Your task to perform on an android device: Go to Wikipedia Image 0: 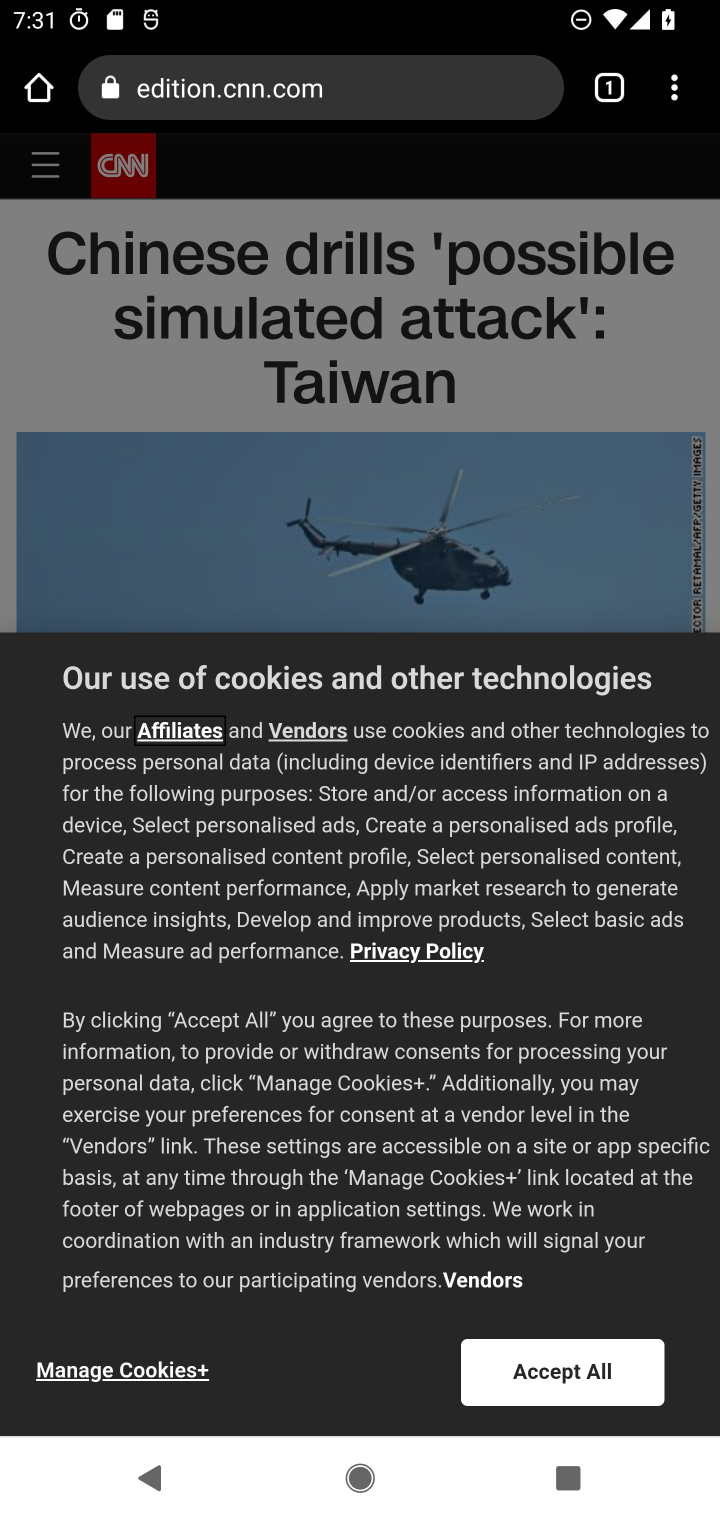
Step 0: click (347, 90)
Your task to perform on an android device: Go to Wikipedia Image 1: 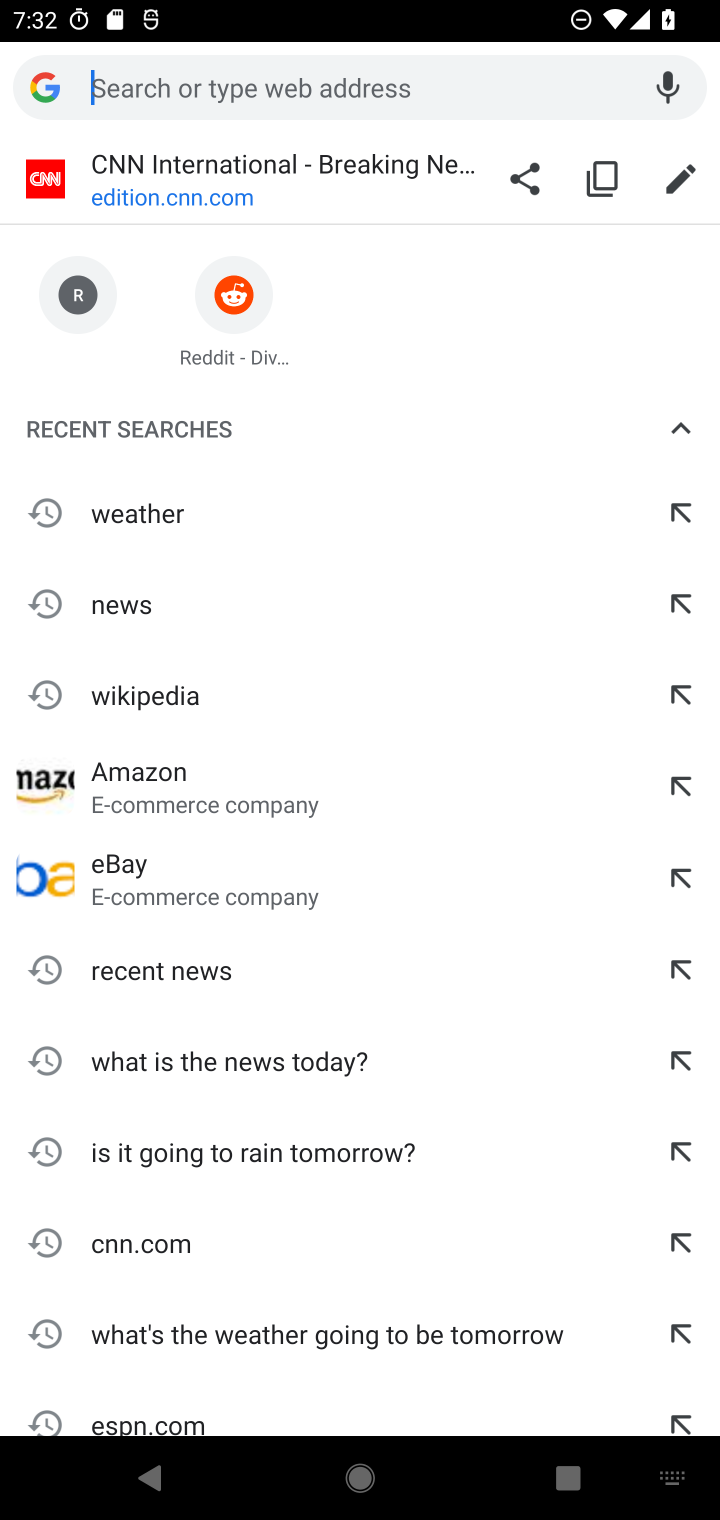
Step 1: type "wikipedia"
Your task to perform on an android device: Go to Wikipedia Image 2: 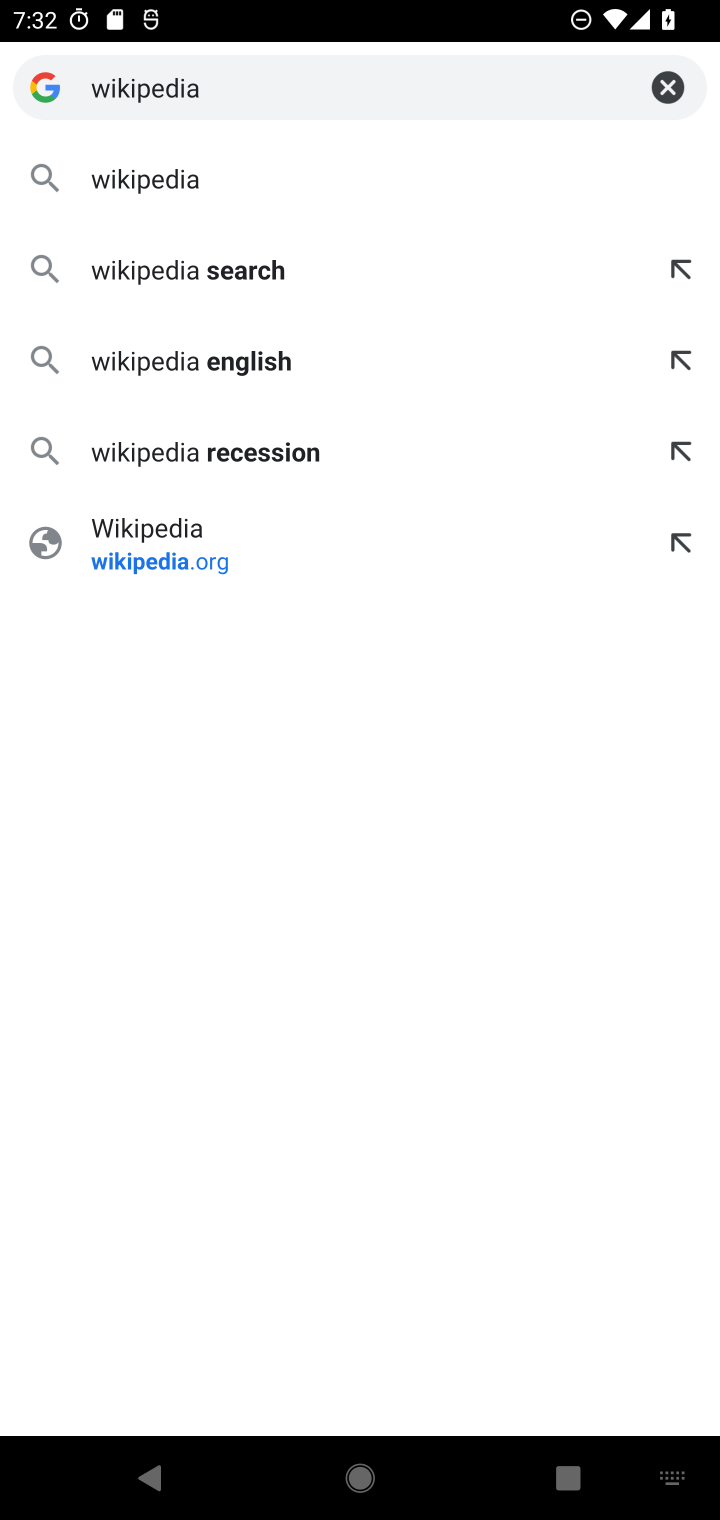
Step 2: click (112, 189)
Your task to perform on an android device: Go to Wikipedia Image 3: 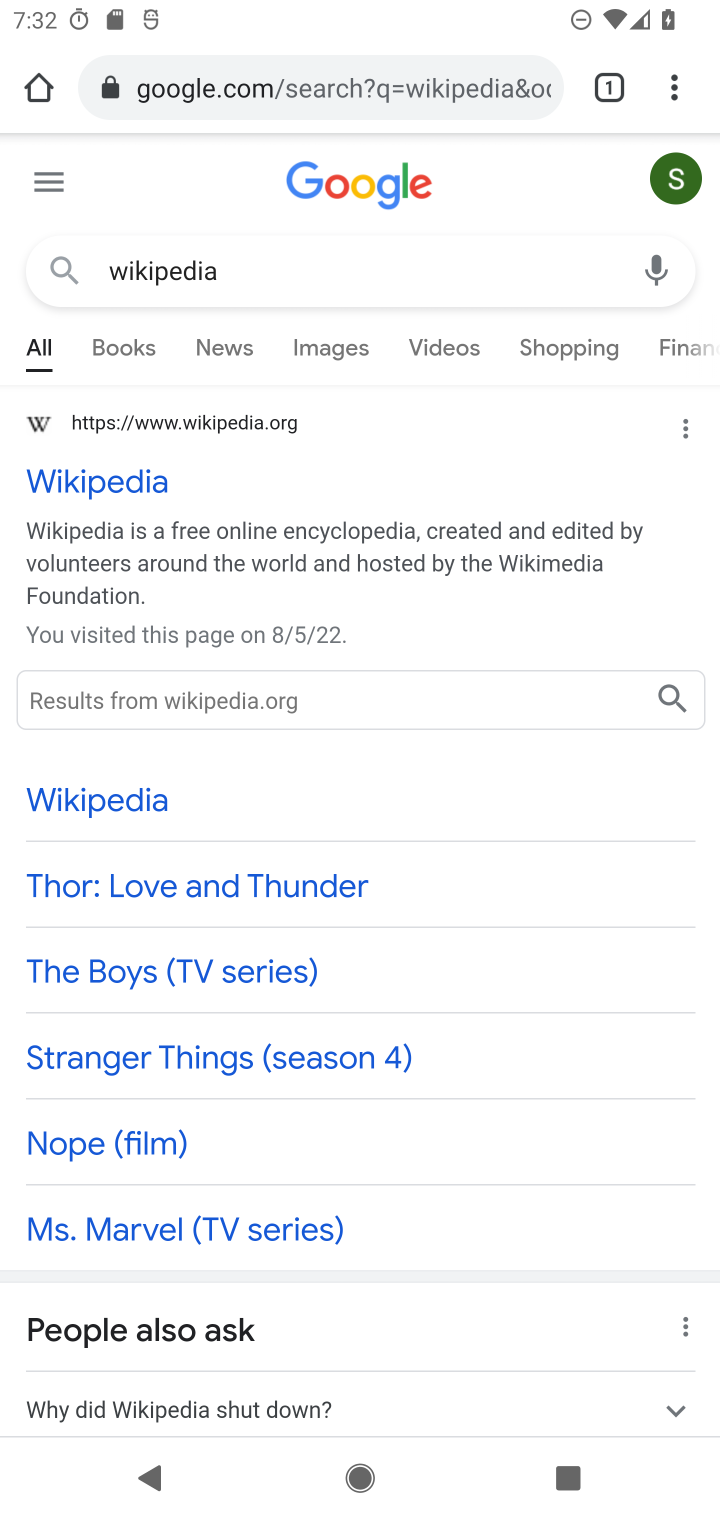
Step 3: click (99, 480)
Your task to perform on an android device: Go to Wikipedia Image 4: 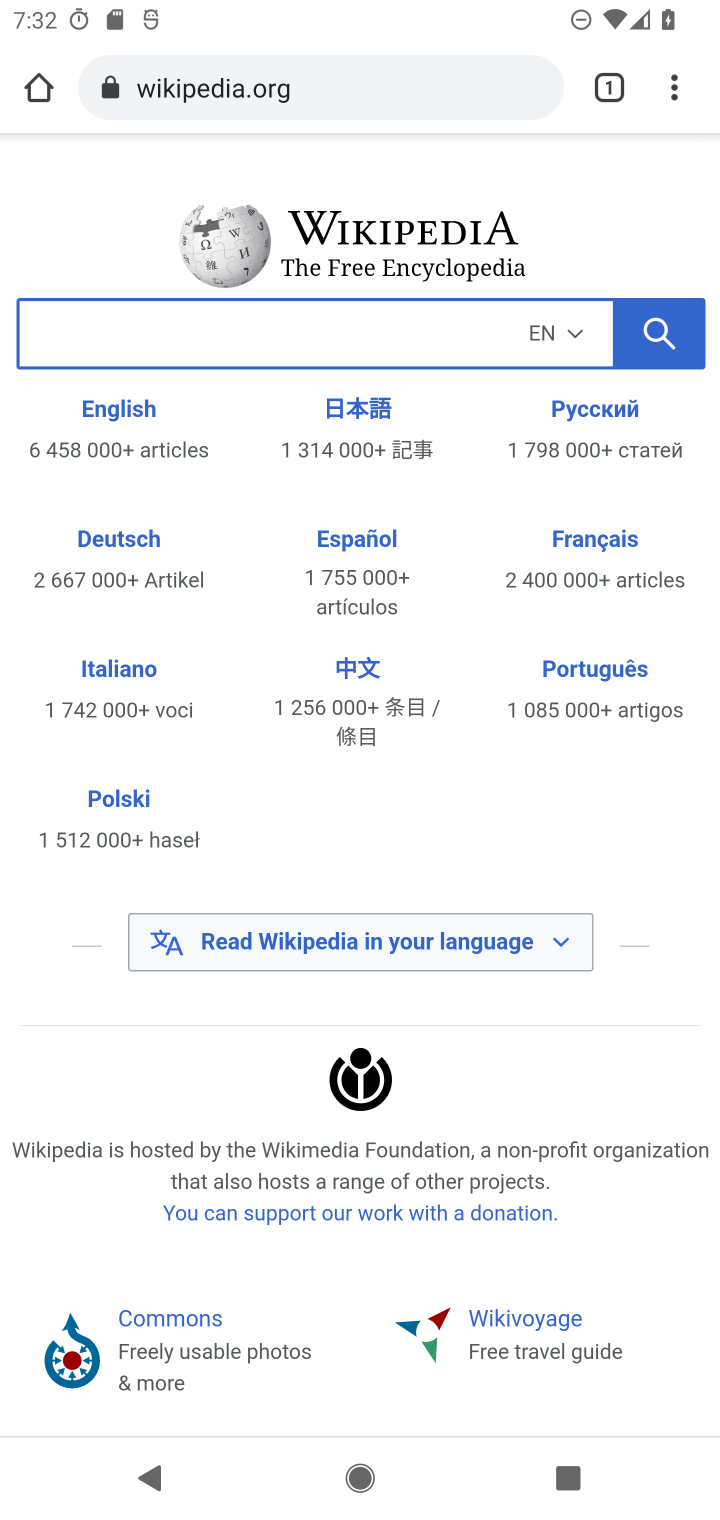
Step 4: task complete